Your task to perform on an android device: delete the emails in spam in the gmail app Image 0: 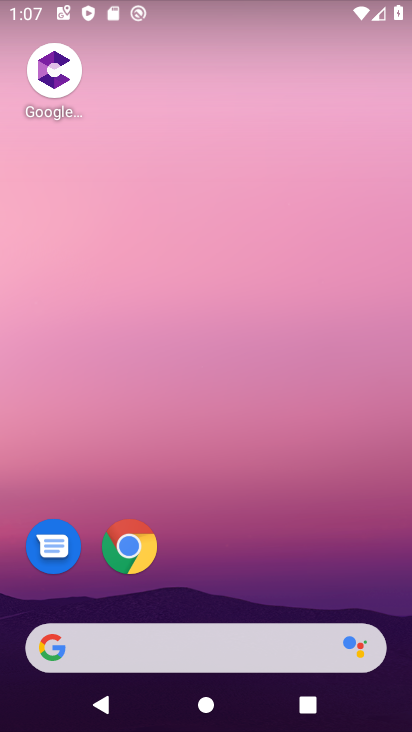
Step 0: drag from (282, 605) to (299, 83)
Your task to perform on an android device: delete the emails in spam in the gmail app Image 1: 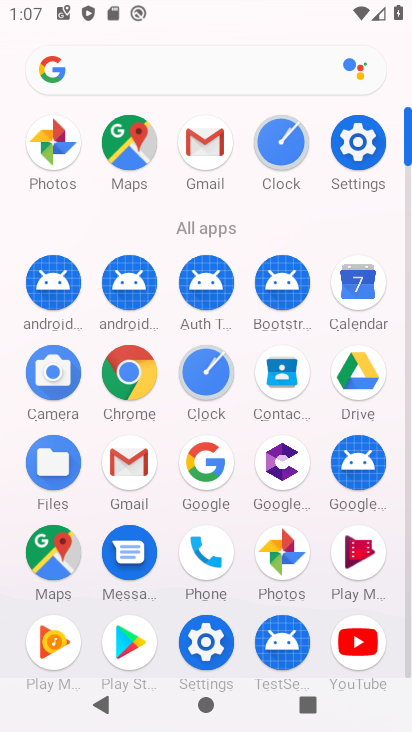
Step 1: click (192, 141)
Your task to perform on an android device: delete the emails in spam in the gmail app Image 2: 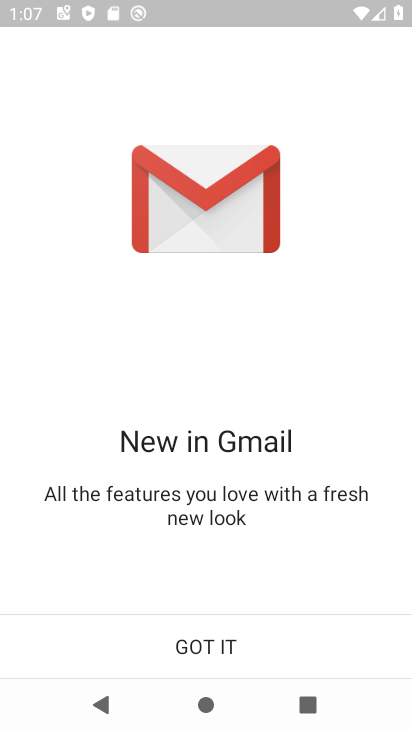
Step 2: click (204, 639)
Your task to perform on an android device: delete the emails in spam in the gmail app Image 3: 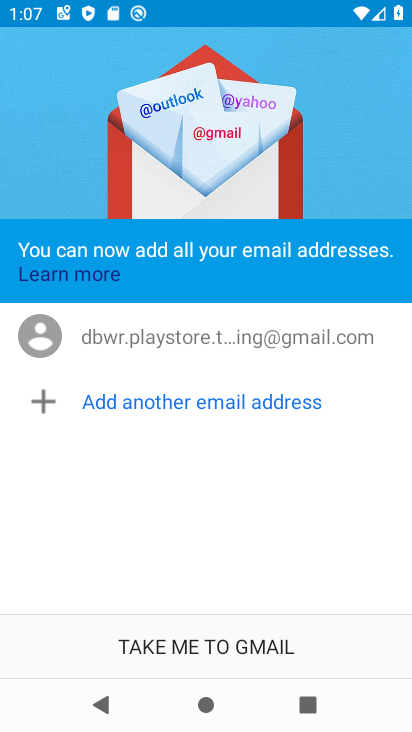
Step 3: click (204, 639)
Your task to perform on an android device: delete the emails in spam in the gmail app Image 4: 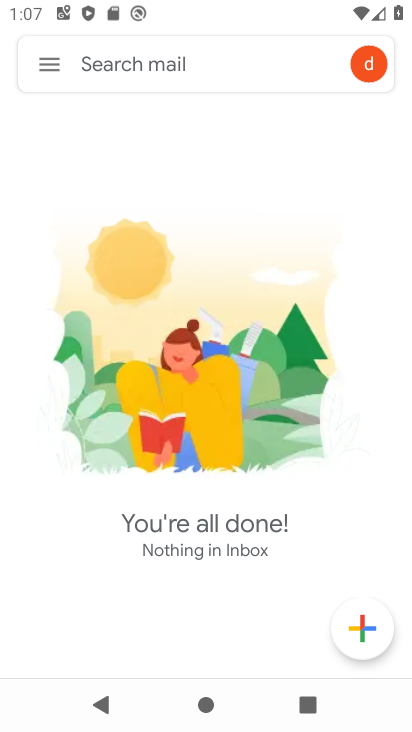
Step 4: click (52, 70)
Your task to perform on an android device: delete the emails in spam in the gmail app Image 5: 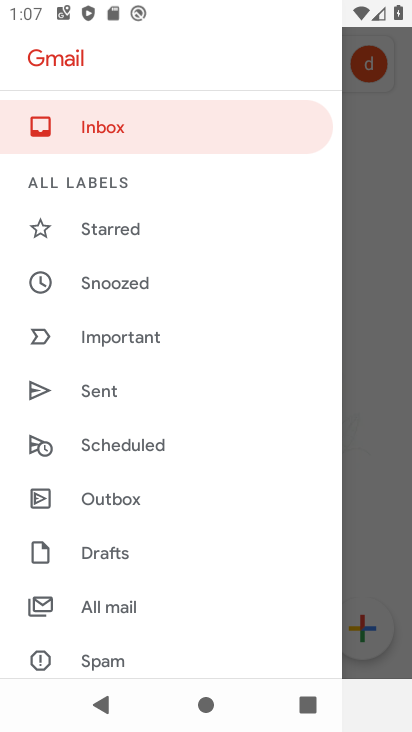
Step 5: click (107, 656)
Your task to perform on an android device: delete the emails in spam in the gmail app Image 6: 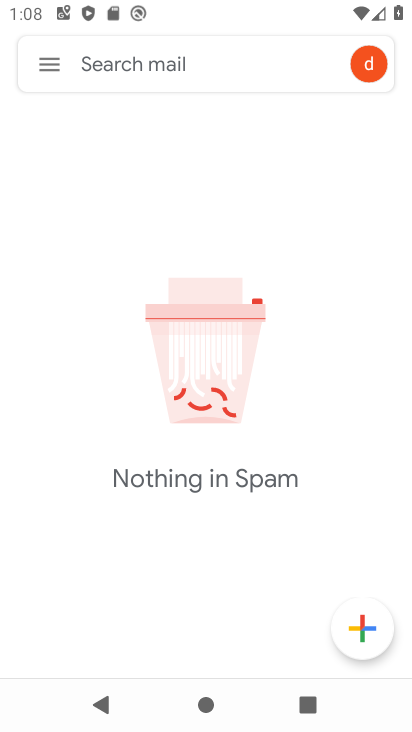
Step 6: task complete